Your task to perform on an android device: Find coffee shops on Maps Image 0: 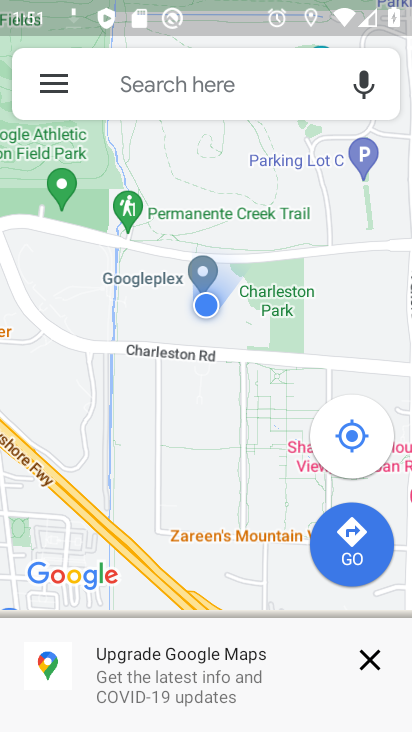
Step 0: press home button
Your task to perform on an android device: Find coffee shops on Maps Image 1: 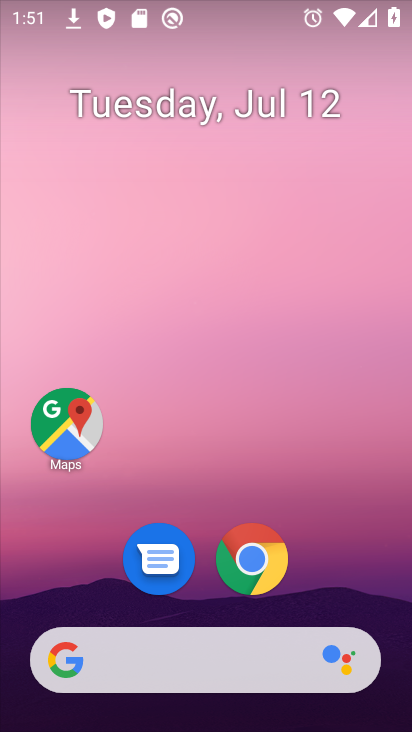
Step 1: drag from (381, 576) to (391, 107)
Your task to perform on an android device: Find coffee shops on Maps Image 2: 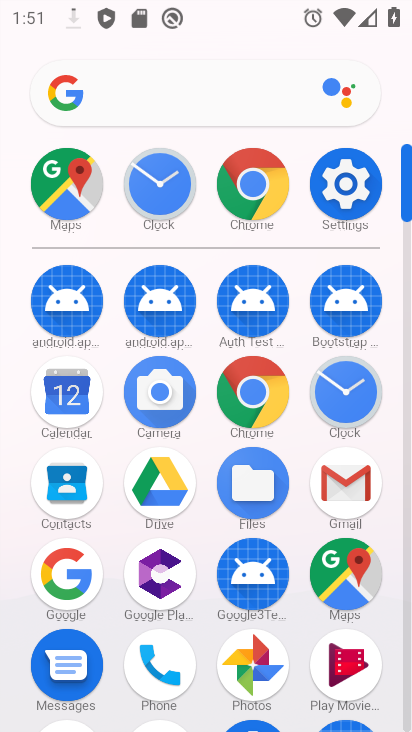
Step 2: click (351, 569)
Your task to perform on an android device: Find coffee shops on Maps Image 3: 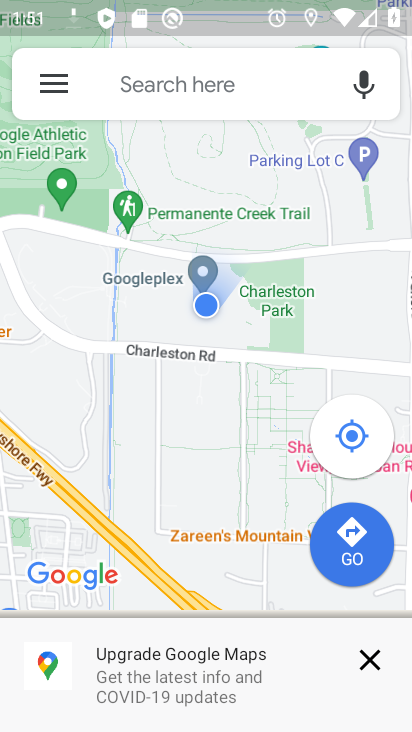
Step 3: click (150, 87)
Your task to perform on an android device: Find coffee shops on Maps Image 4: 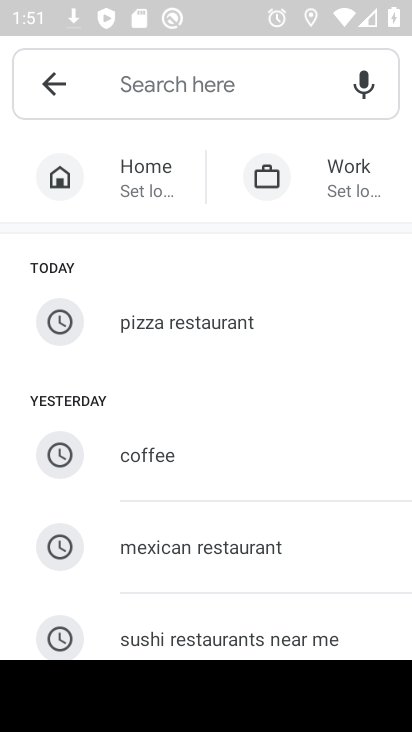
Step 4: type "coffee shops"
Your task to perform on an android device: Find coffee shops on Maps Image 5: 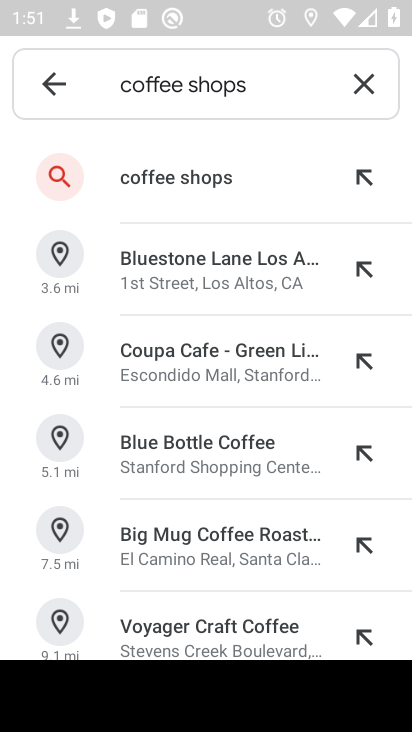
Step 5: click (252, 187)
Your task to perform on an android device: Find coffee shops on Maps Image 6: 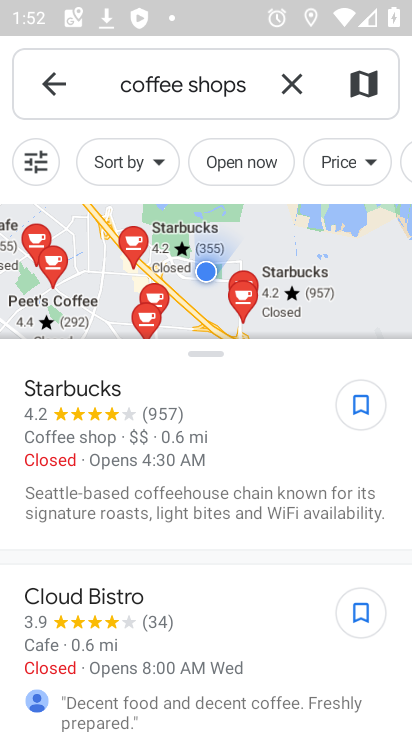
Step 6: task complete